Your task to perform on an android device: Open the stopwatch Image 0: 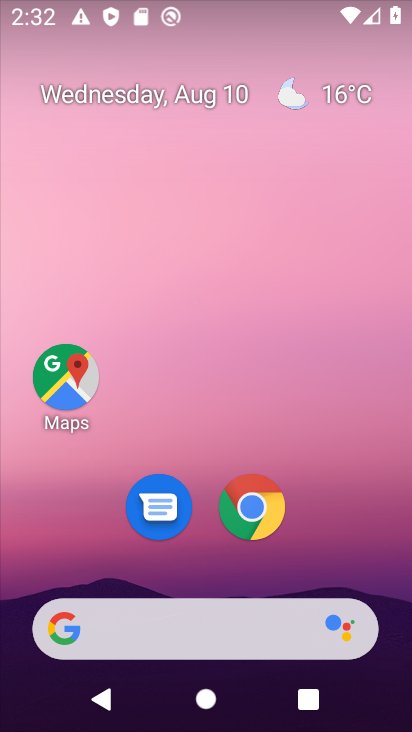
Step 0: drag from (366, 563) to (306, 44)
Your task to perform on an android device: Open the stopwatch Image 1: 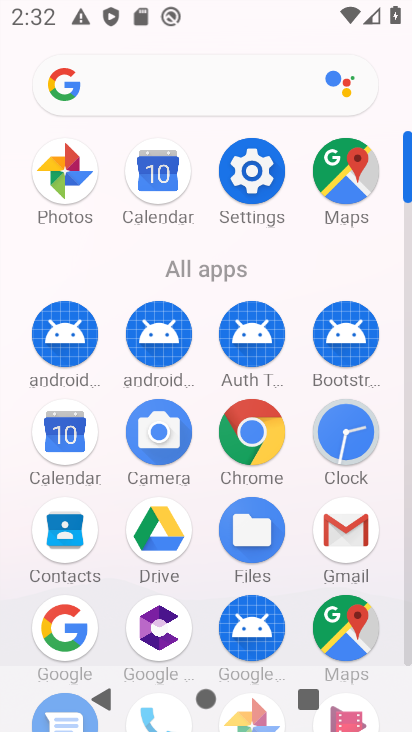
Step 1: click (360, 423)
Your task to perform on an android device: Open the stopwatch Image 2: 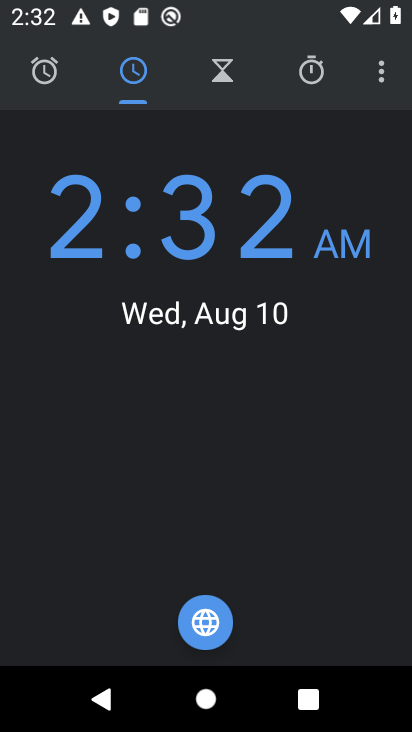
Step 2: click (324, 61)
Your task to perform on an android device: Open the stopwatch Image 3: 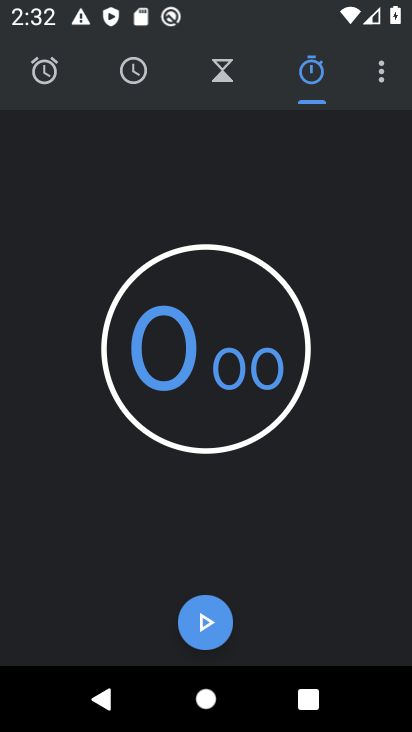
Step 3: task complete